Your task to perform on an android device: Open my contact list Image 0: 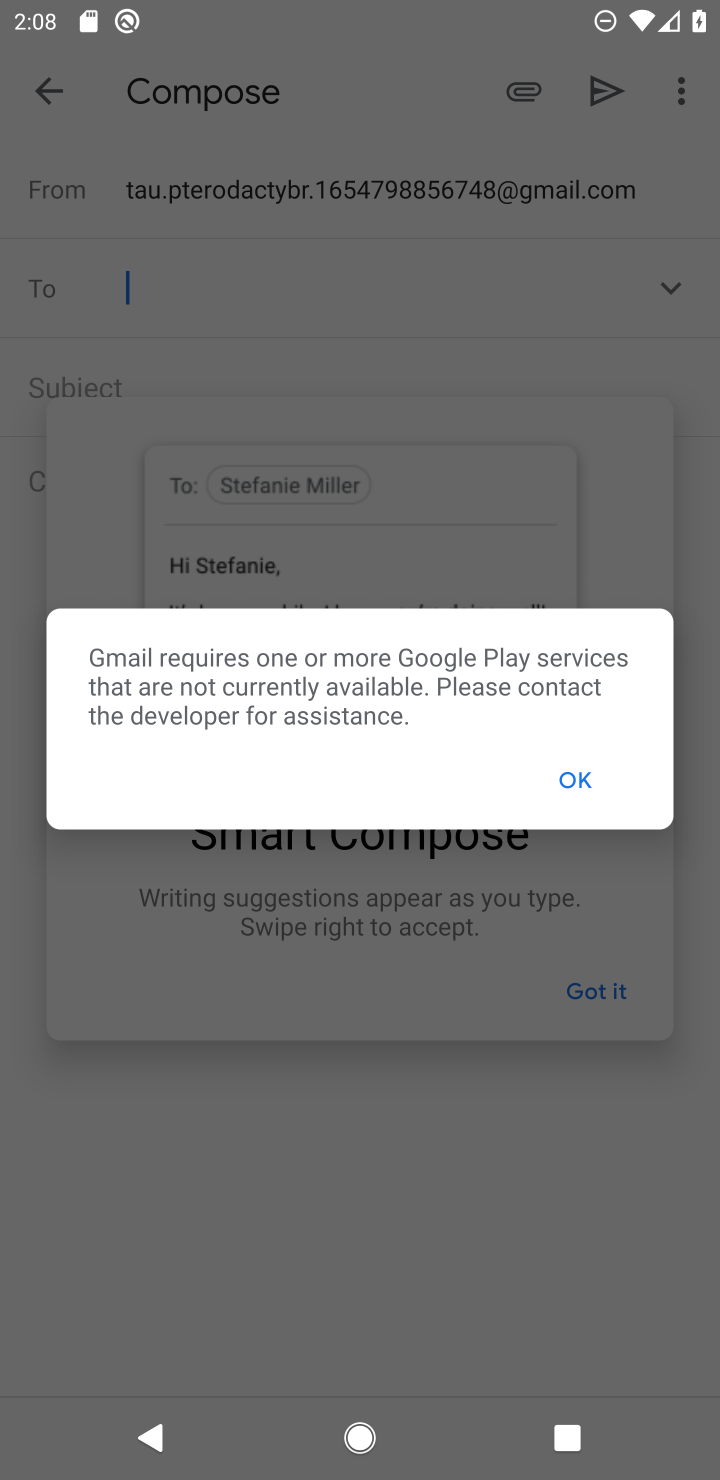
Step 0: press home button
Your task to perform on an android device: Open my contact list Image 1: 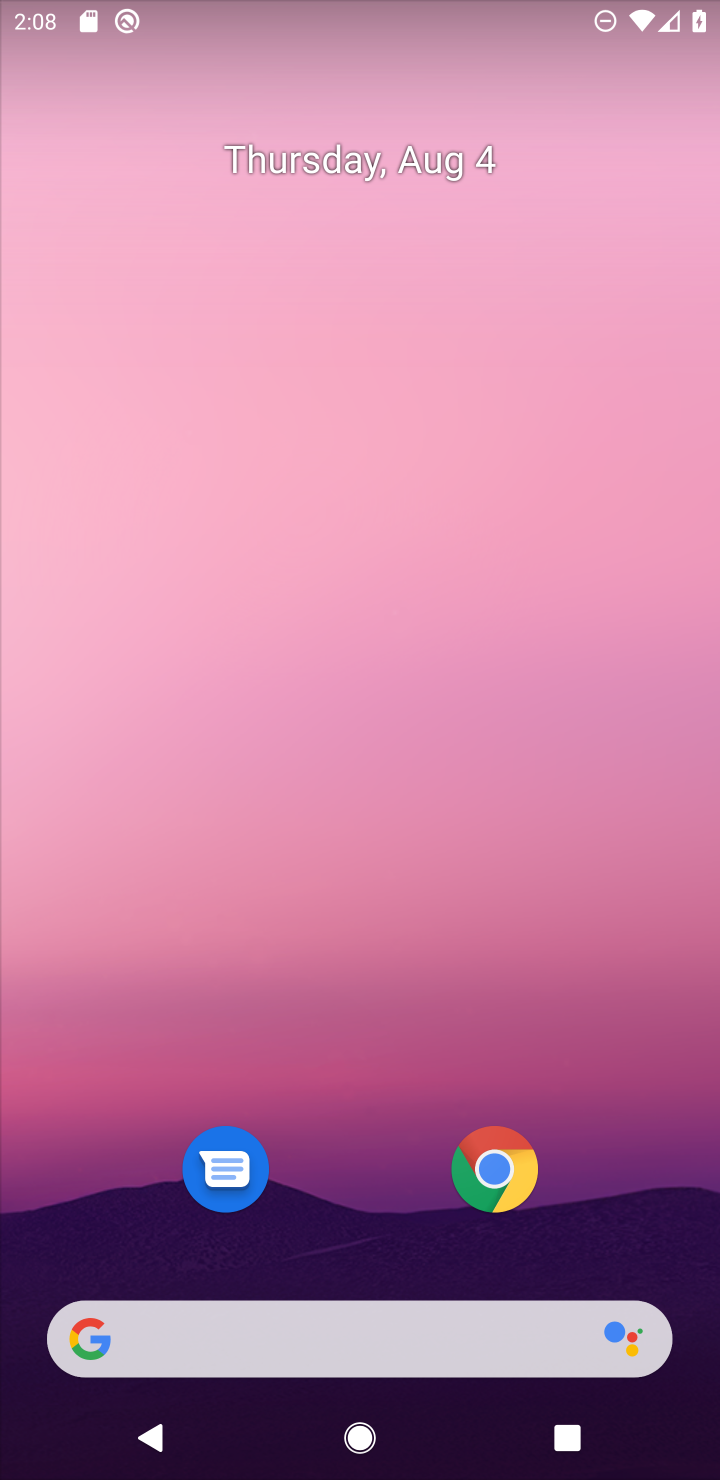
Step 1: drag from (419, 1047) to (591, 45)
Your task to perform on an android device: Open my contact list Image 2: 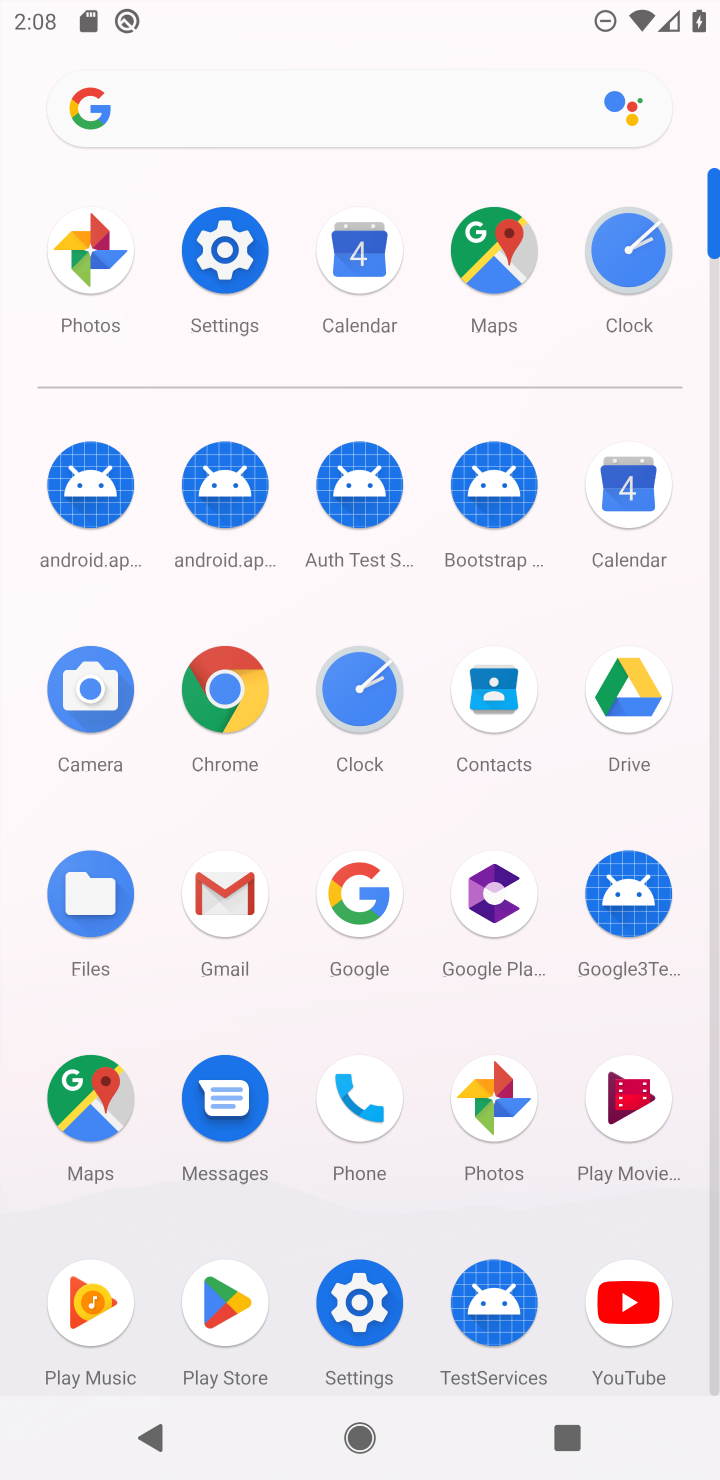
Step 2: click (495, 700)
Your task to perform on an android device: Open my contact list Image 3: 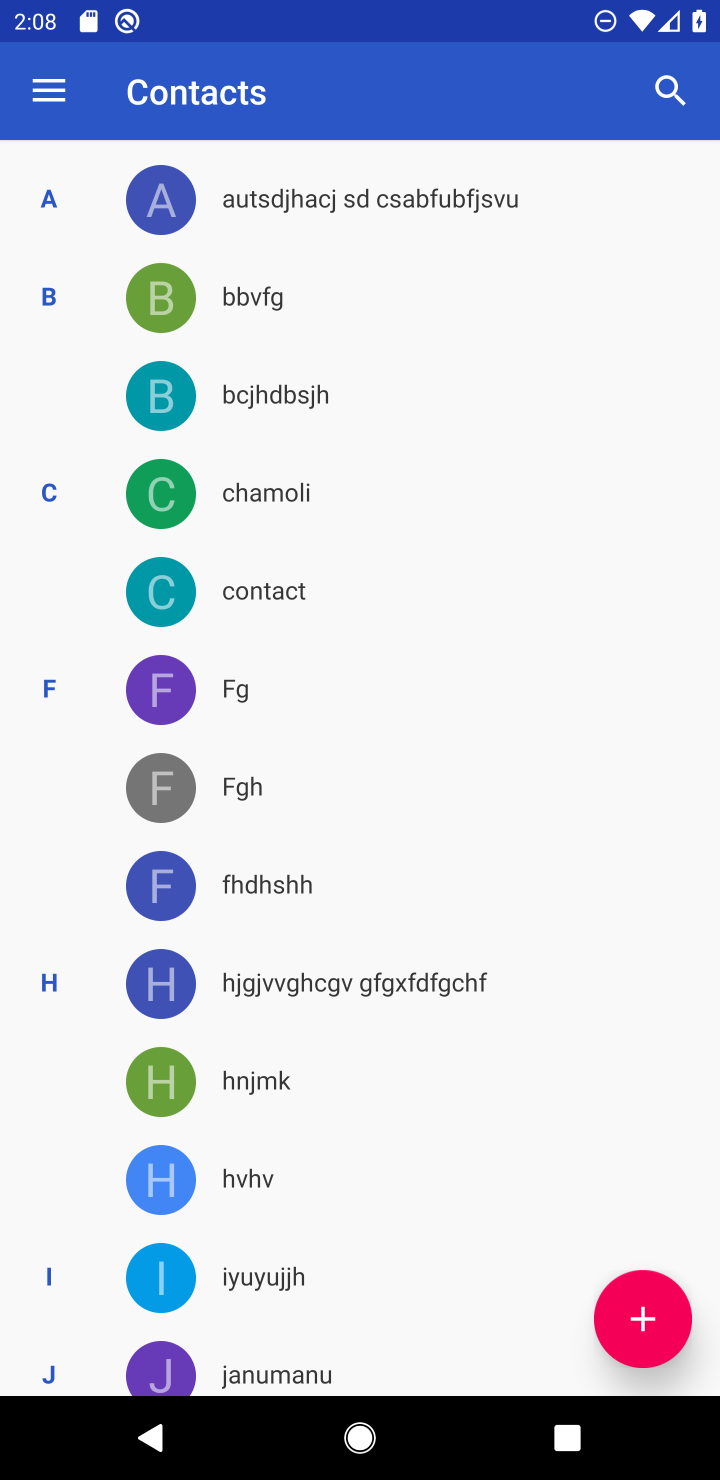
Step 3: task complete